Your task to perform on an android device: Go to display settings Image 0: 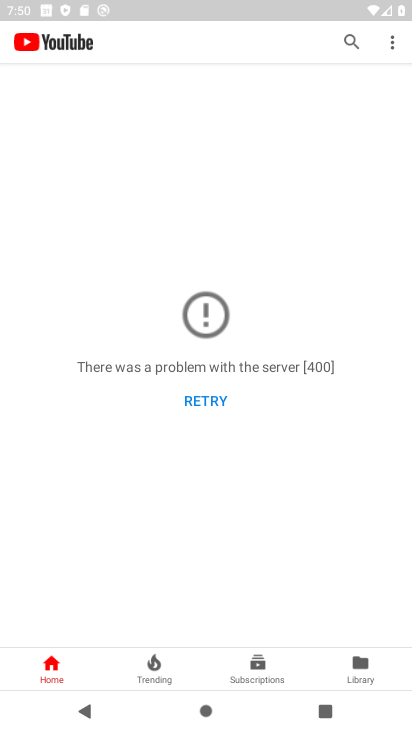
Step 0: press home button
Your task to perform on an android device: Go to display settings Image 1: 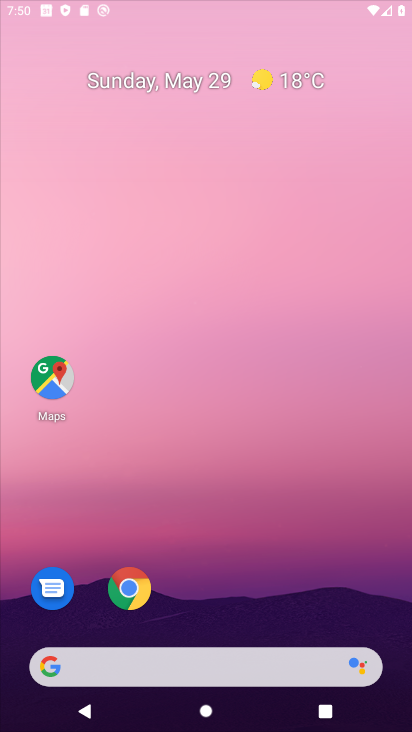
Step 1: drag from (230, 576) to (280, 105)
Your task to perform on an android device: Go to display settings Image 2: 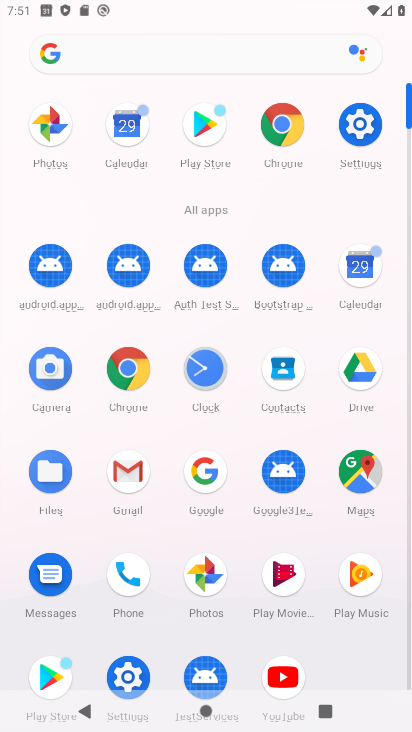
Step 2: click (355, 123)
Your task to perform on an android device: Go to display settings Image 3: 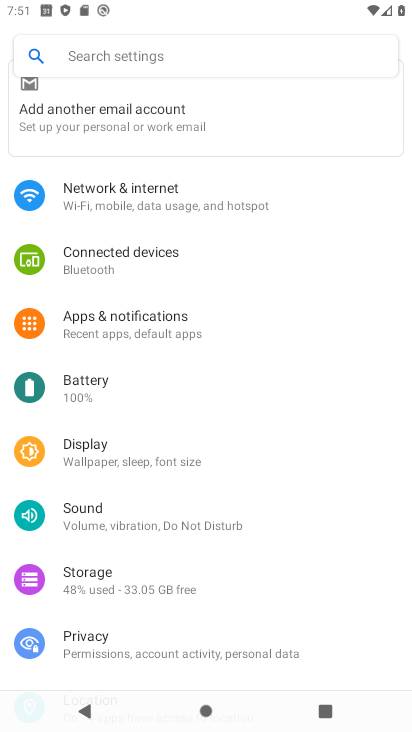
Step 3: drag from (128, 453) to (140, 305)
Your task to perform on an android device: Go to display settings Image 4: 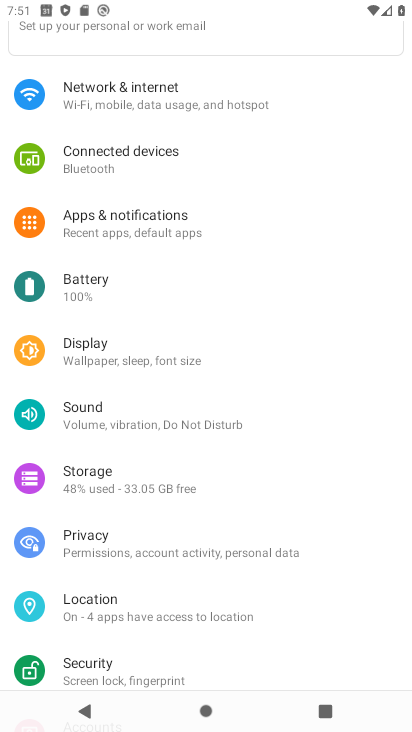
Step 4: click (87, 347)
Your task to perform on an android device: Go to display settings Image 5: 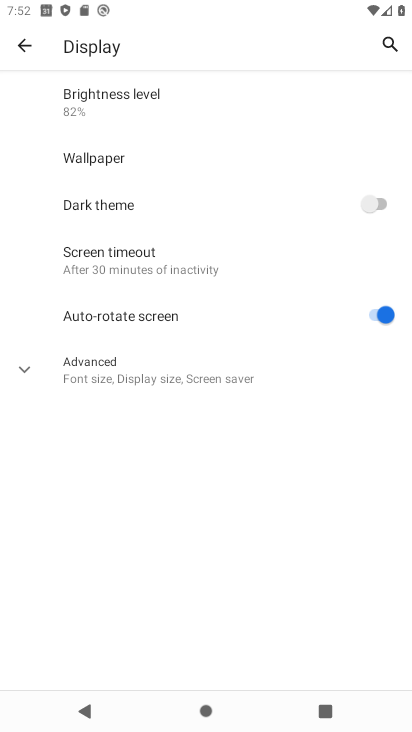
Step 5: task complete